Your task to perform on an android device: turn on the 24-hour format for clock Image 0: 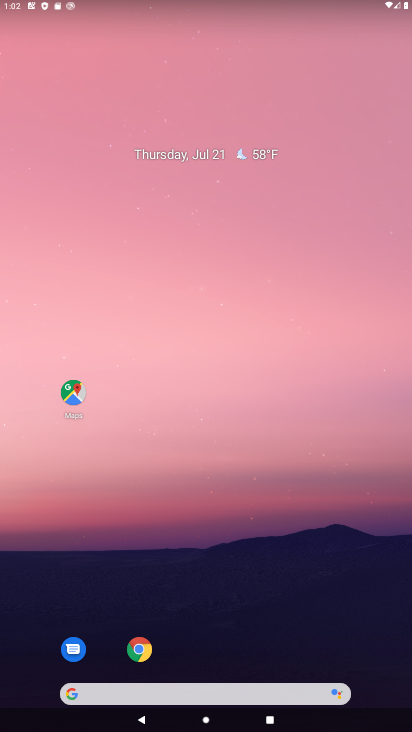
Step 0: task complete